Your task to perform on an android device: Do I have any events today? Image 0: 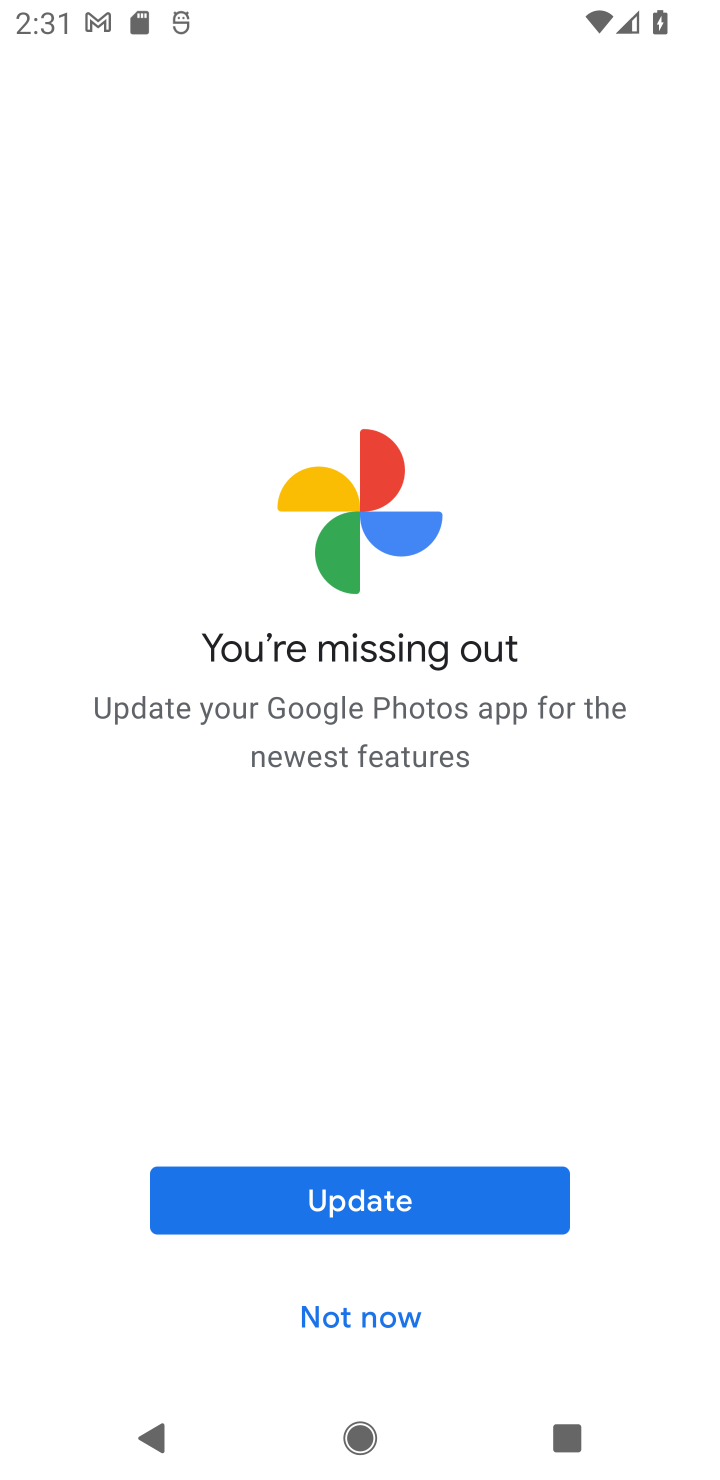
Step 0: press back button
Your task to perform on an android device: Do I have any events today? Image 1: 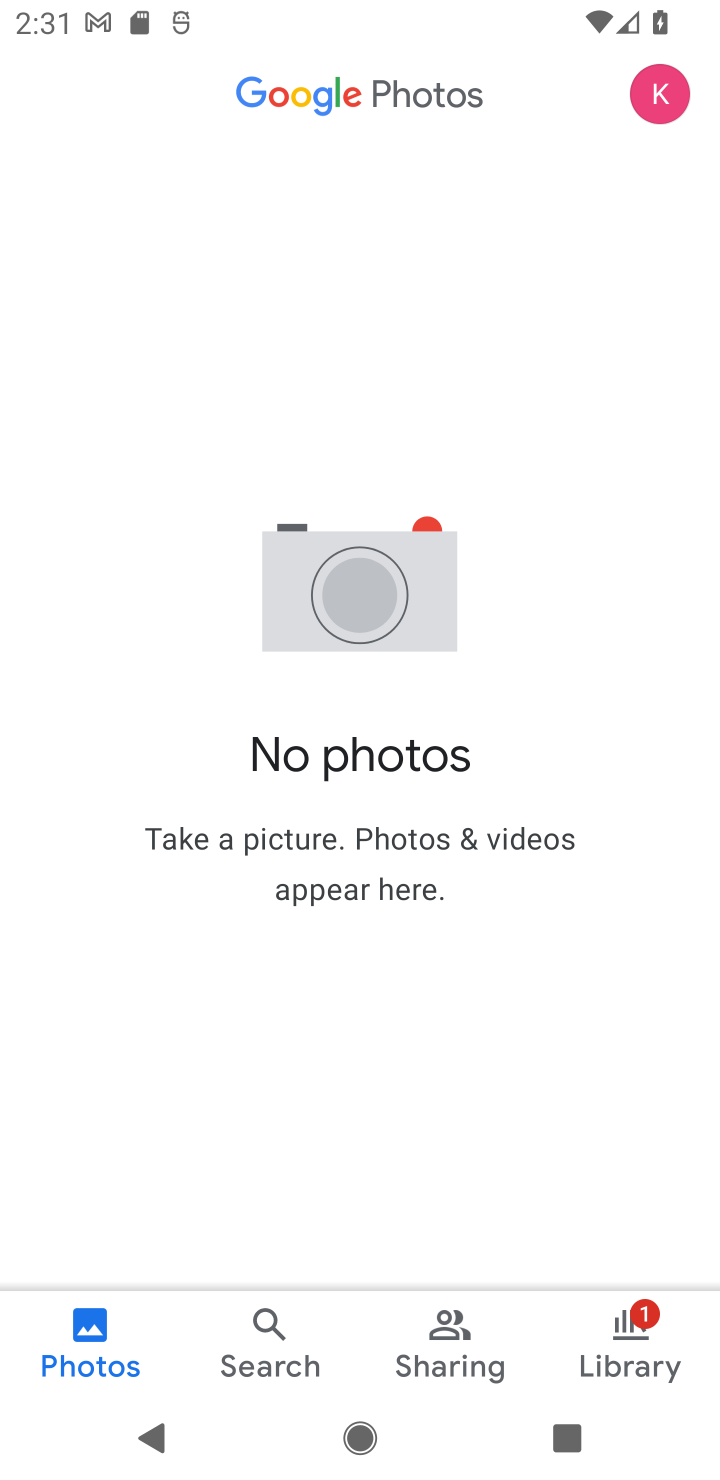
Step 1: press home button
Your task to perform on an android device: Do I have any events today? Image 2: 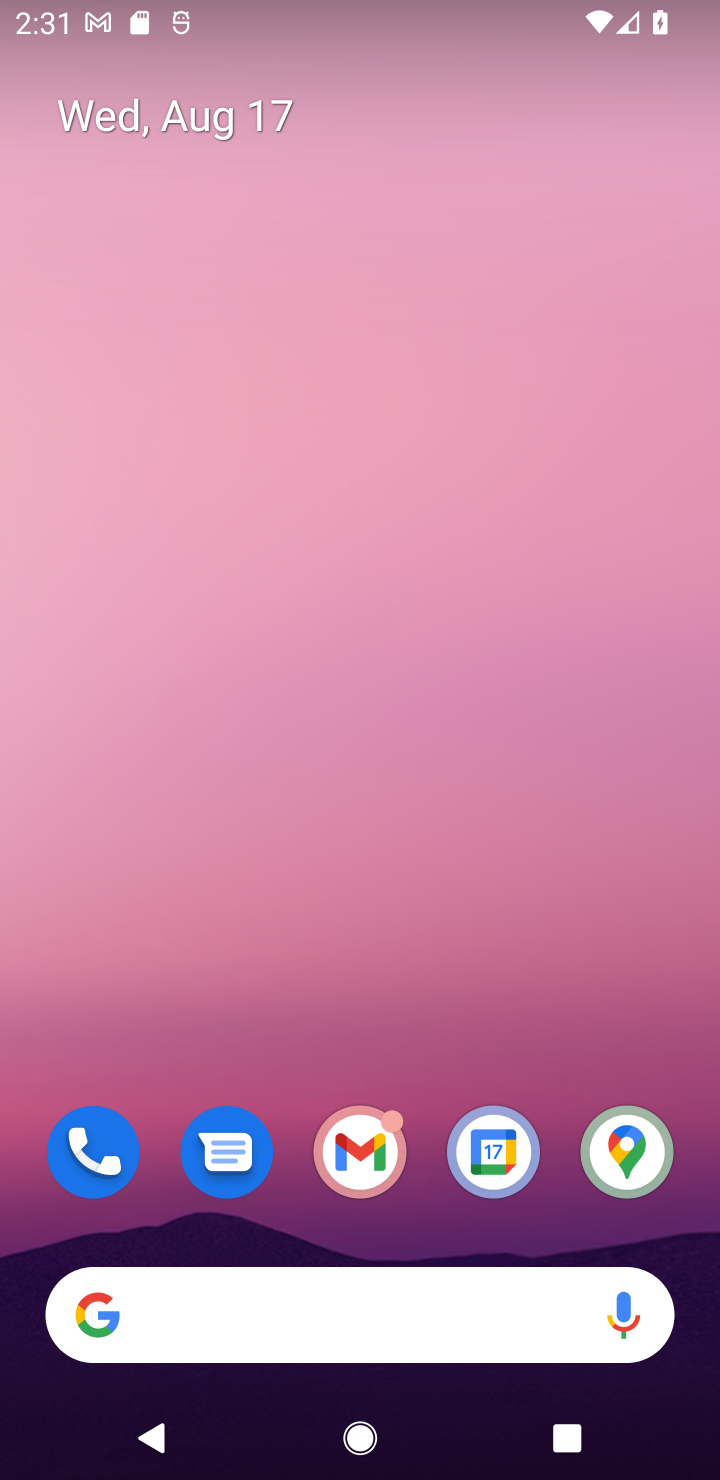
Step 2: drag from (561, 1244) to (471, 13)
Your task to perform on an android device: Do I have any events today? Image 3: 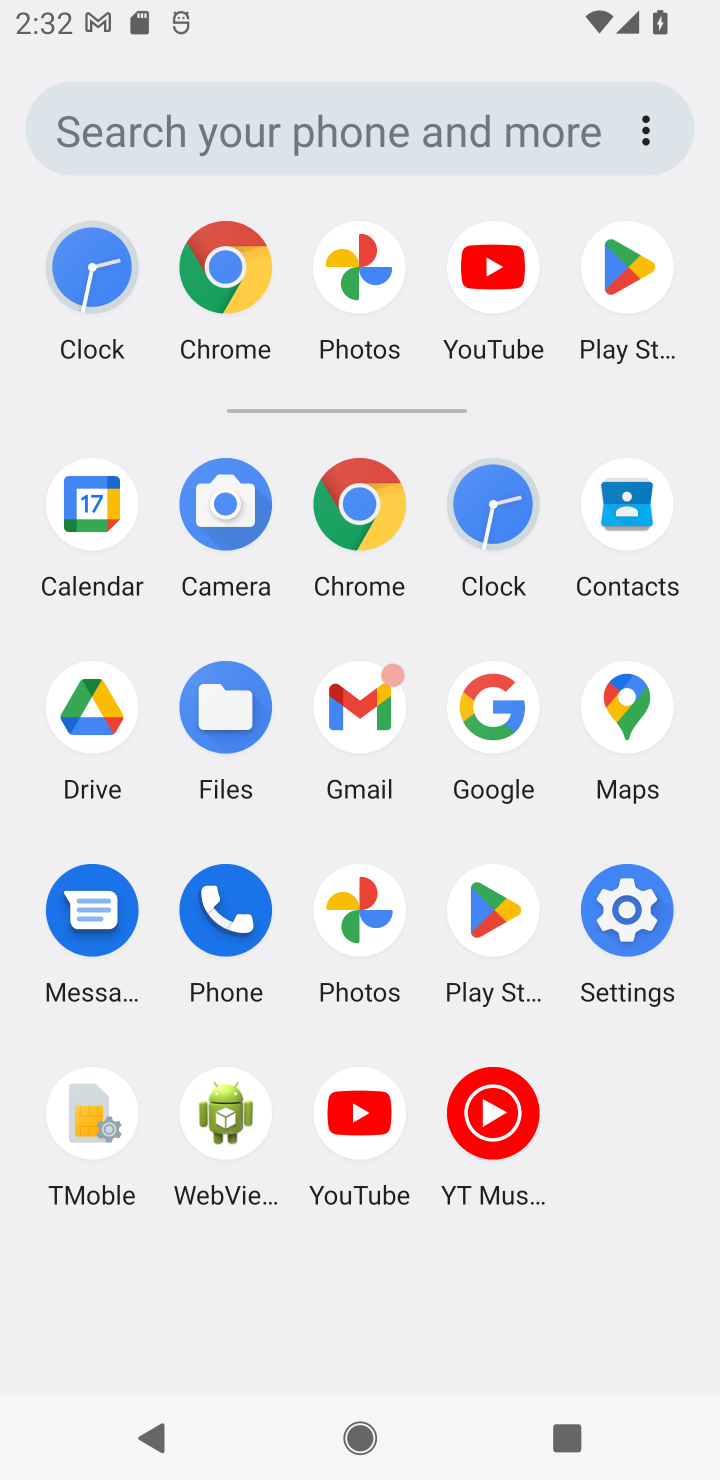
Step 3: click (94, 523)
Your task to perform on an android device: Do I have any events today? Image 4: 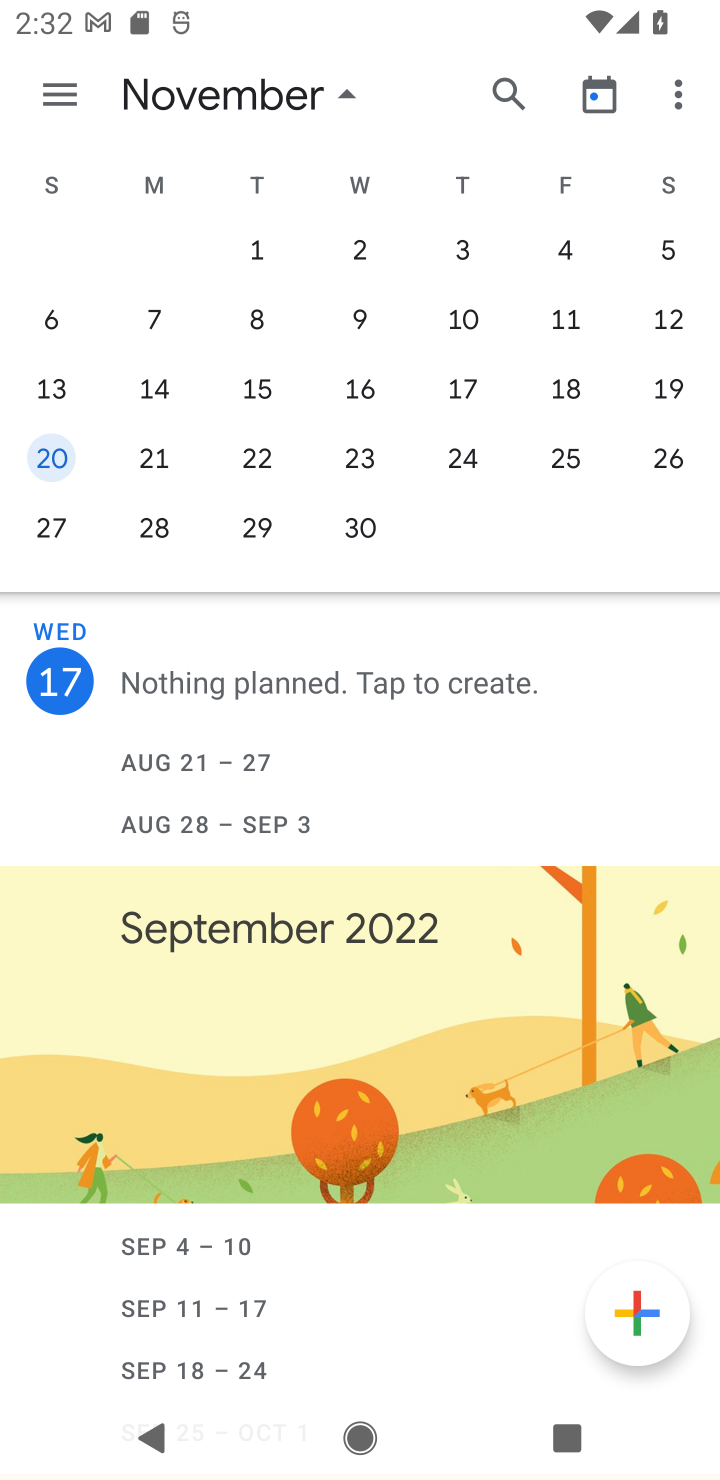
Step 4: task complete